Your task to perform on an android device: turn on javascript in the chrome app Image 0: 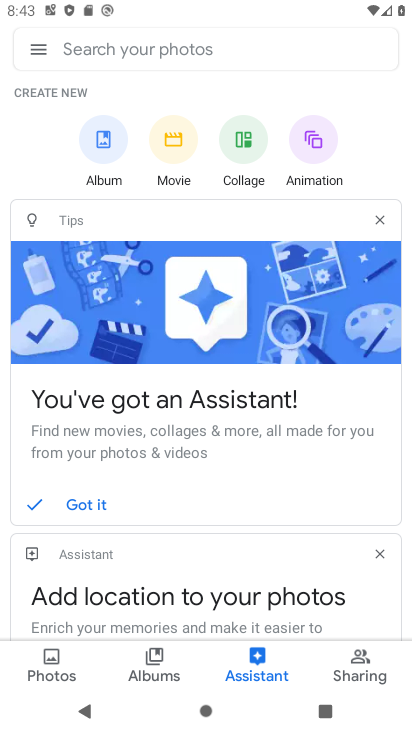
Step 0: press home button
Your task to perform on an android device: turn on javascript in the chrome app Image 1: 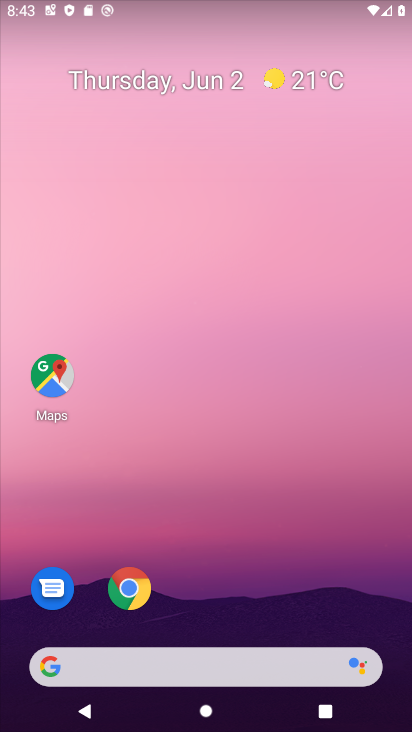
Step 1: click (140, 584)
Your task to perform on an android device: turn on javascript in the chrome app Image 2: 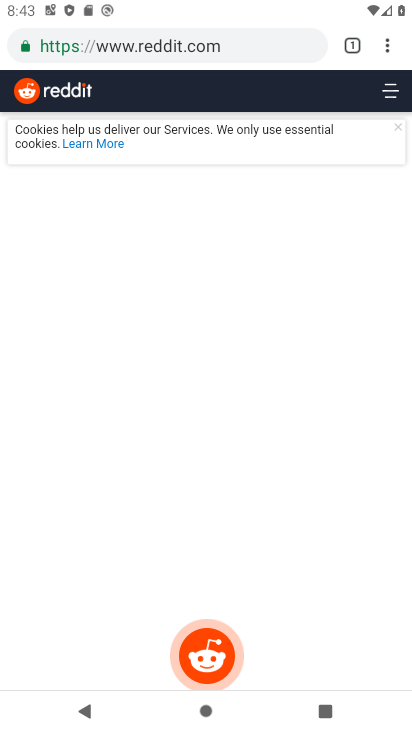
Step 2: drag from (393, 40) to (246, 549)
Your task to perform on an android device: turn on javascript in the chrome app Image 3: 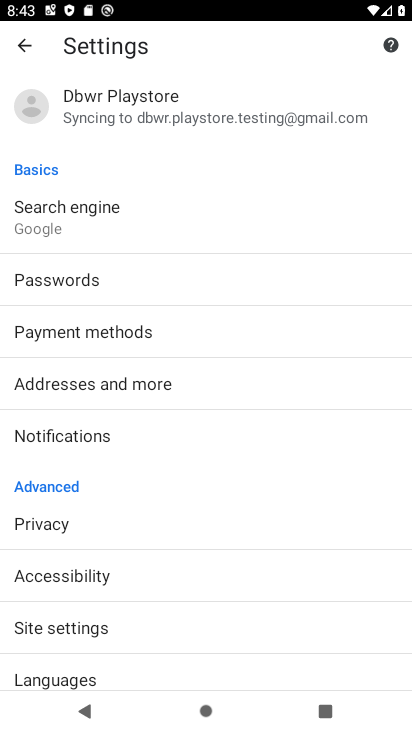
Step 3: click (70, 624)
Your task to perform on an android device: turn on javascript in the chrome app Image 4: 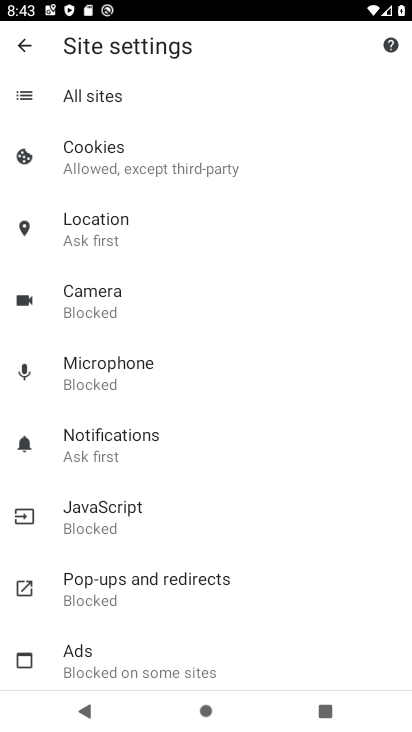
Step 4: click (109, 527)
Your task to perform on an android device: turn on javascript in the chrome app Image 5: 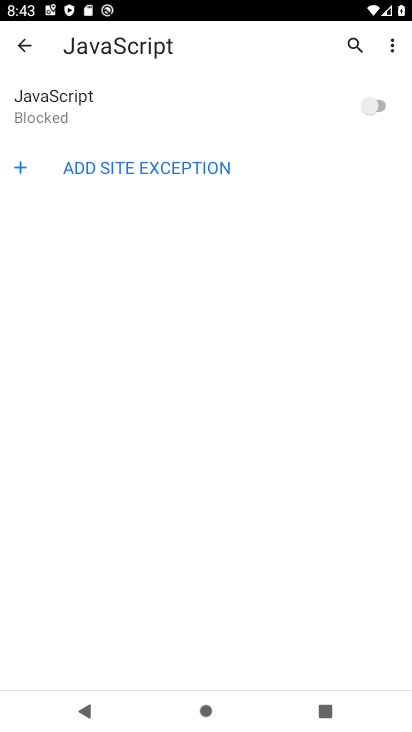
Step 5: click (373, 113)
Your task to perform on an android device: turn on javascript in the chrome app Image 6: 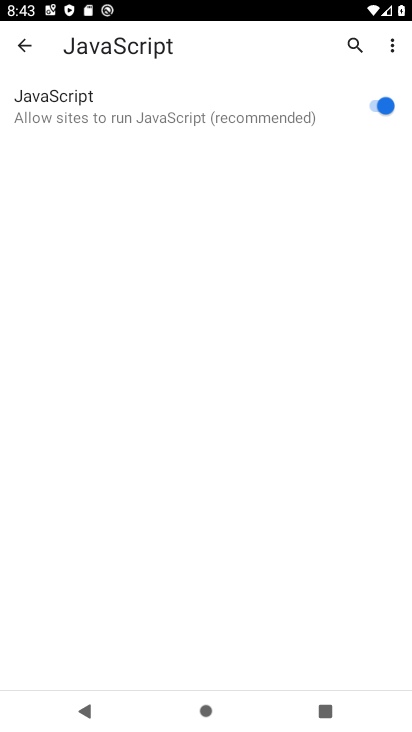
Step 6: task complete